Your task to perform on an android device: Check the weather Image 0: 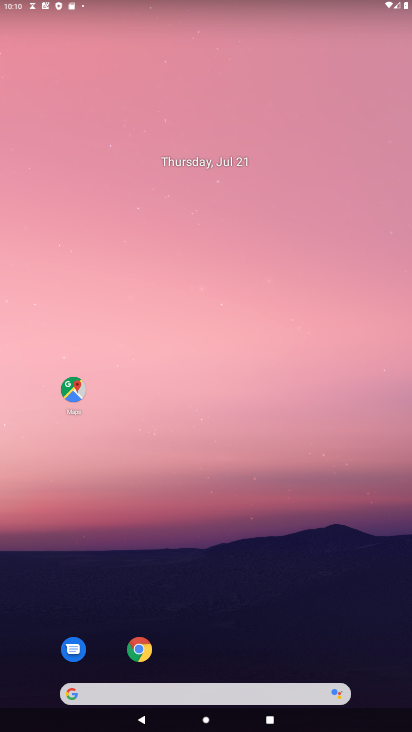
Step 0: drag from (17, 336) to (395, 310)
Your task to perform on an android device: Check the weather Image 1: 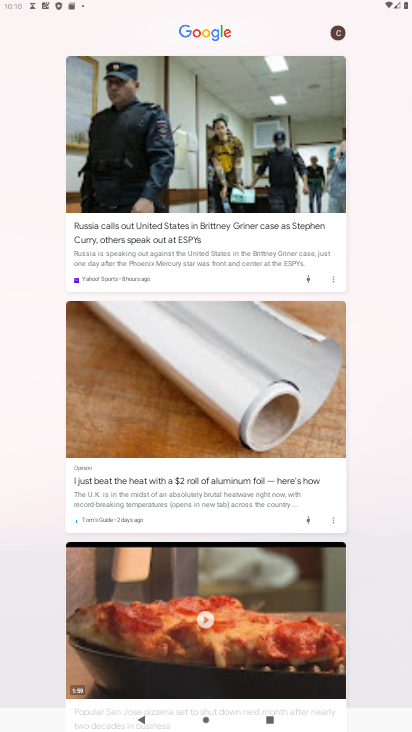
Step 1: press home button
Your task to perform on an android device: Check the weather Image 2: 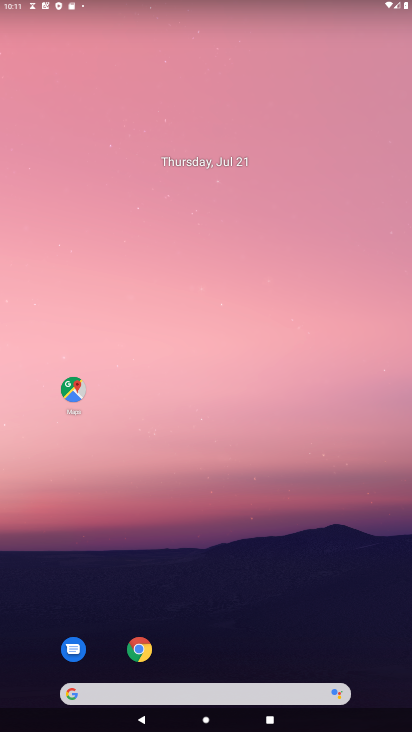
Step 2: click (264, 694)
Your task to perform on an android device: Check the weather Image 3: 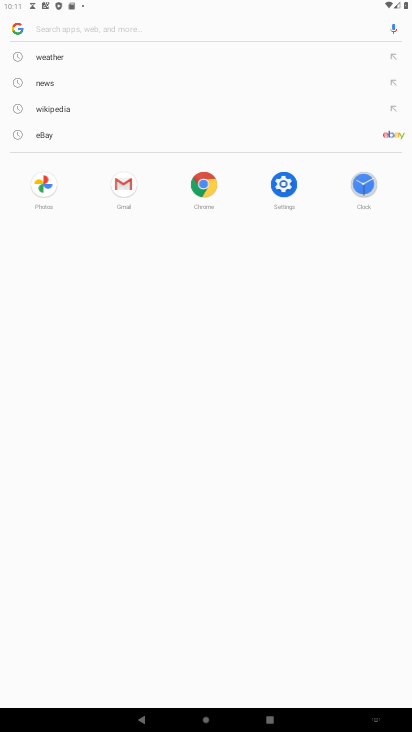
Step 3: click (80, 58)
Your task to perform on an android device: Check the weather Image 4: 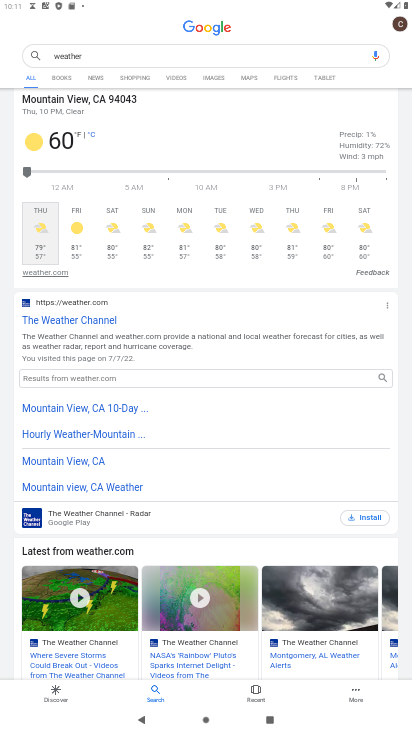
Step 4: task complete